Your task to perform on an android device: open wifi settings Image 0: 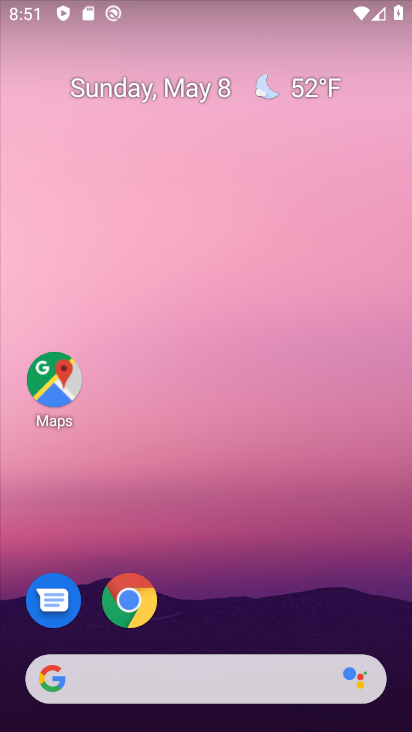
Step 0: drag from (233, 616) to (267, 79)
Your task to perform on an android device: open wifi settings Image 1: 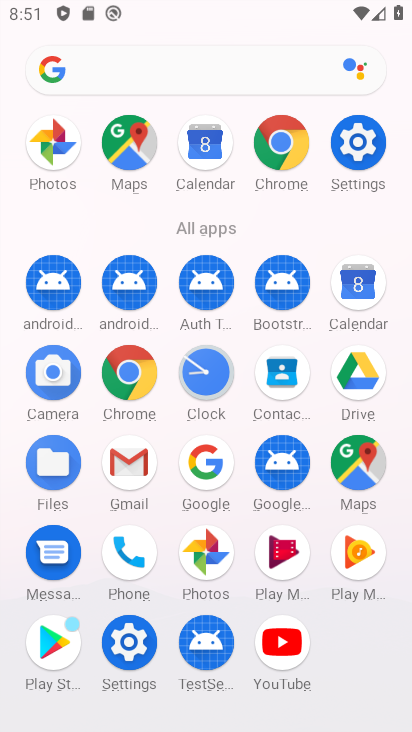
Step 1: click (358, 165)
Your task to perform on an android device: open wifi settings Image 2: 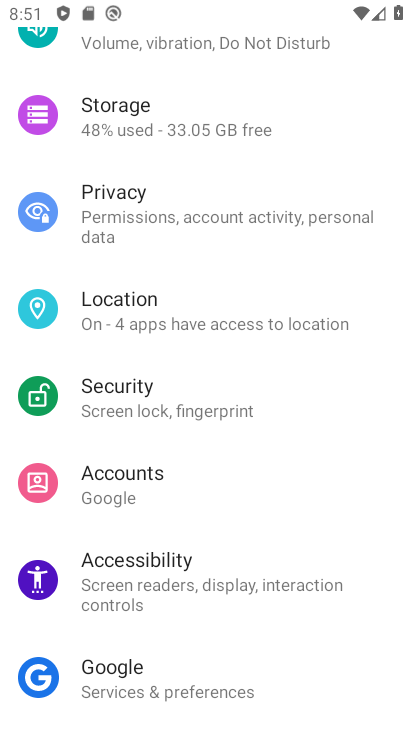
Step 2: drag from (221, 189) to (179, 604)
Your task to perform on an android device: open wifi settings Image 3: 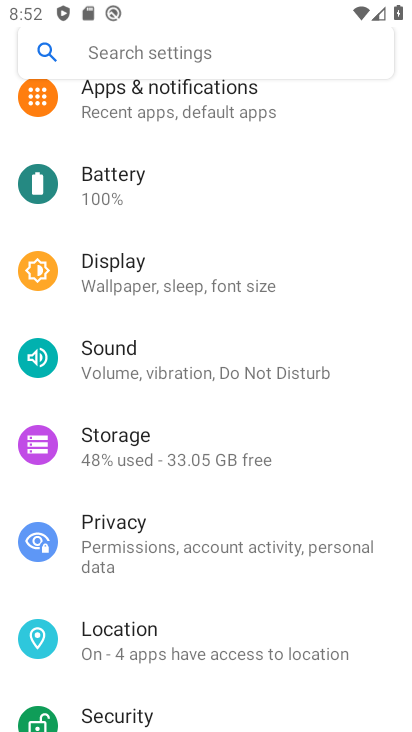
Step 3: drag from (217, 181) to (205, 591)
Your task to perform on an android device: open wifi settings Image 4: 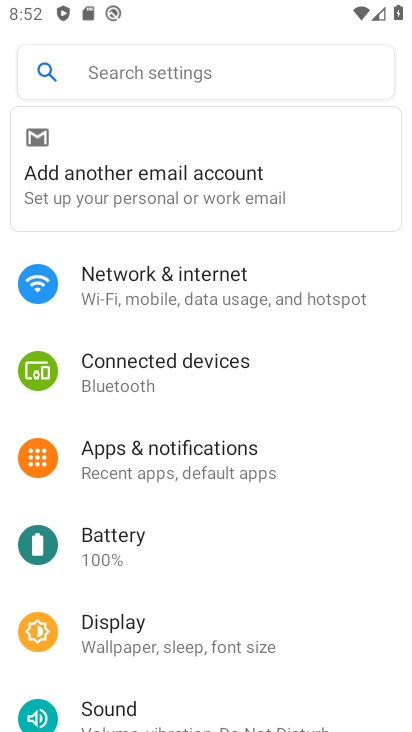
Step 4: click (207, 310)
Your task to perform on an android device: open wifi settings Image 5: 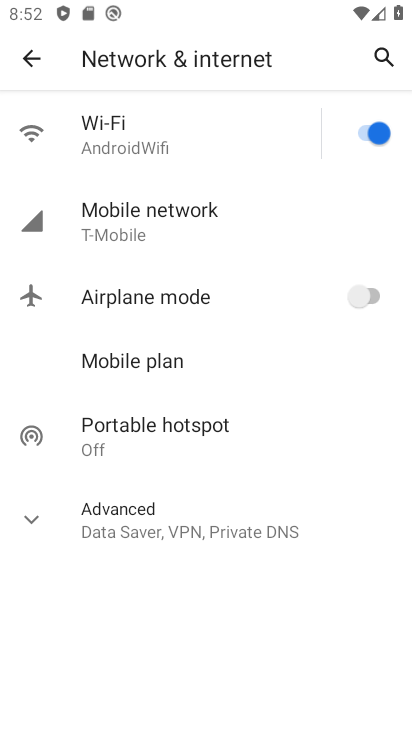
Step 5: click (188, 153)
Your task to perform on an android device: open wifi settings Image 6: 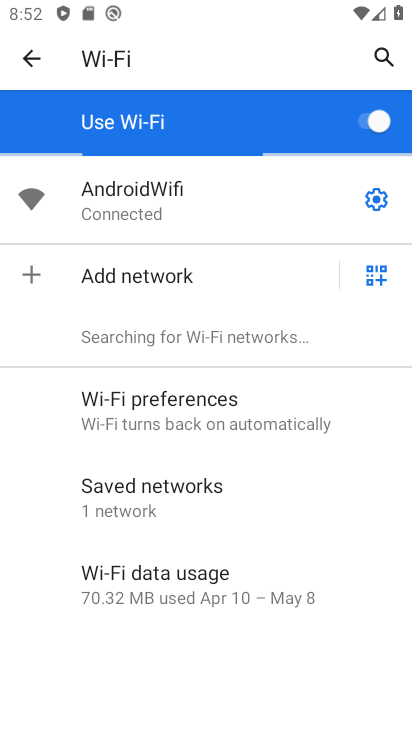
Step 6: task complete